Your task to perform on an android device: Go to display settings Image 0: 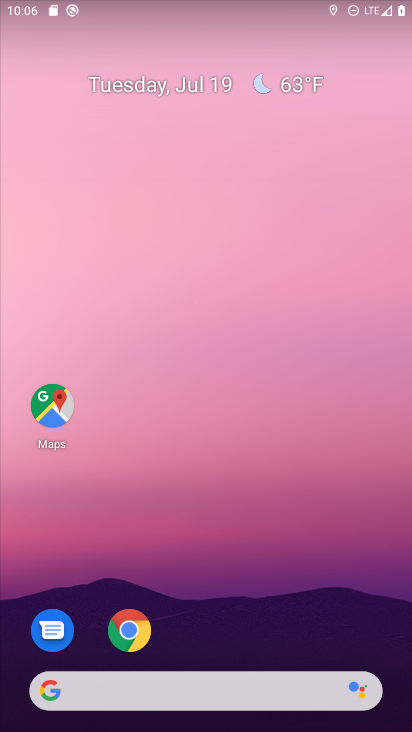
Step 0: drag from (178, 690) to (166, 35)
Your task to perform on an android device: Go to display settings Image 1: 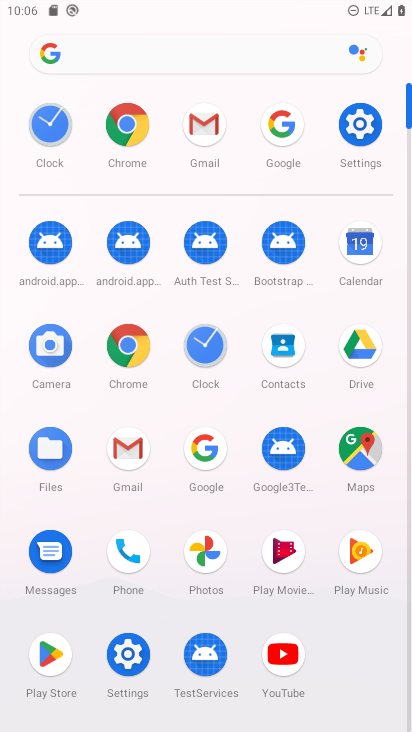
Step 1: click (127, 653)
Your task to perform on an android device: Go to display settings Image 2: 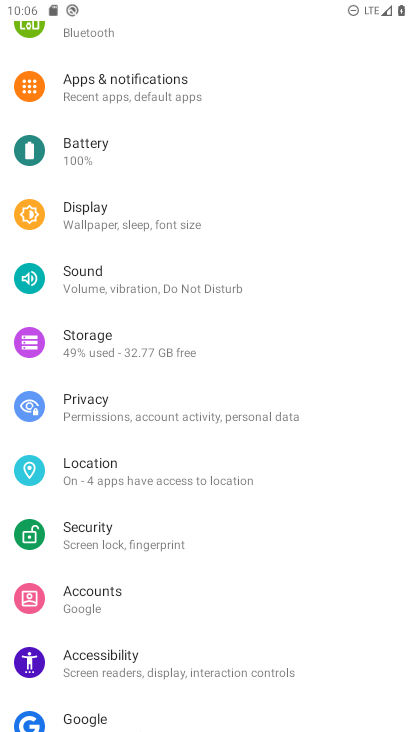
Step 2: click (101, 221)
Your task to perform on an android device: Go to display settings Image 3: 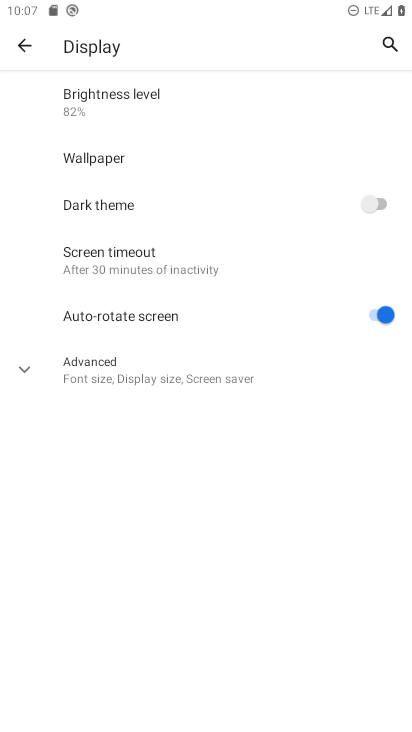
Step 3: task complete